Your task to perform on an android device: set default search engine in the chrome app Image 0: 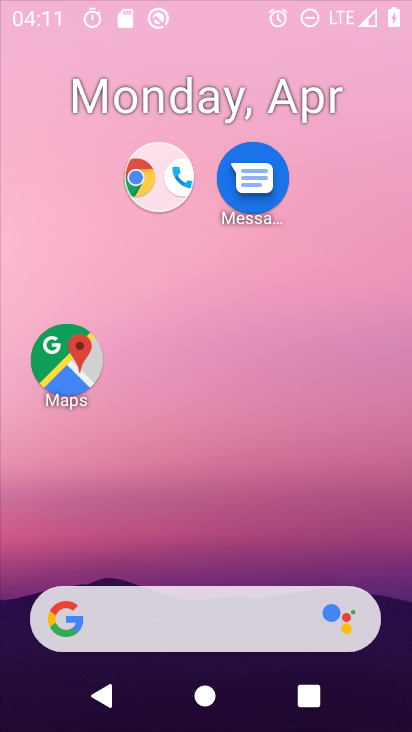
Step 0: click (291, 0)
Your task to perform on an android device: set default search engine in the chrome app Image 1: 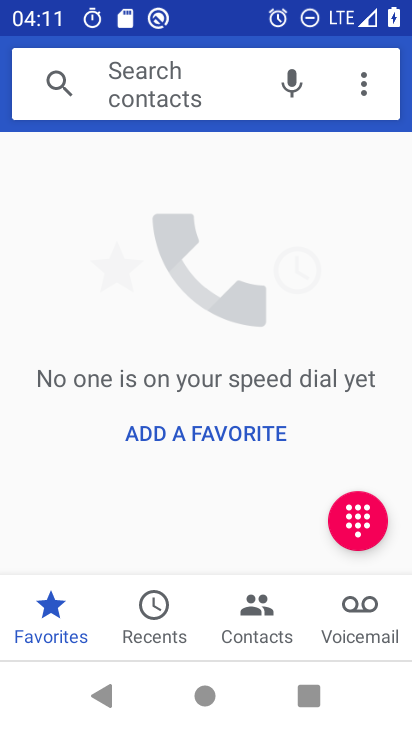
Step 1: press home button
Your task to perform on an android device: set default search engine in the chrome app Image 2: 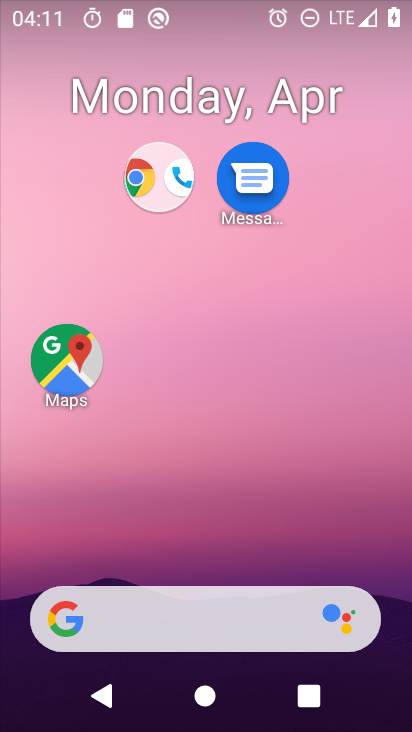
Step 2: drag from (246, 586) to (288, 2)
Your task to perform on an android device: set default search engine in the chrome app Image 3: 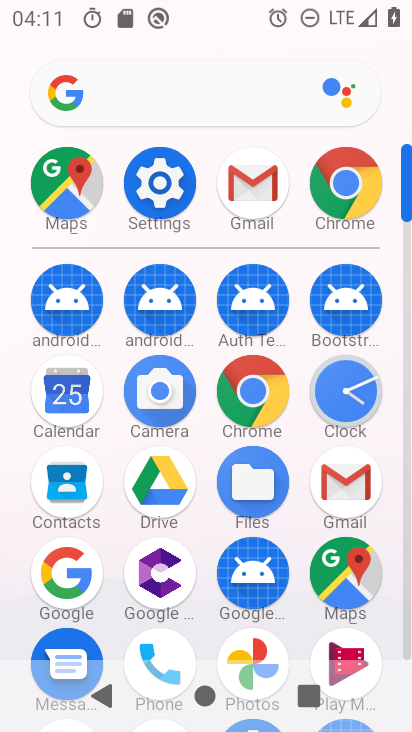
Step 3: click (260, 389)
Your task to perform on an android device: set default search engine in the chrome app Image 4: 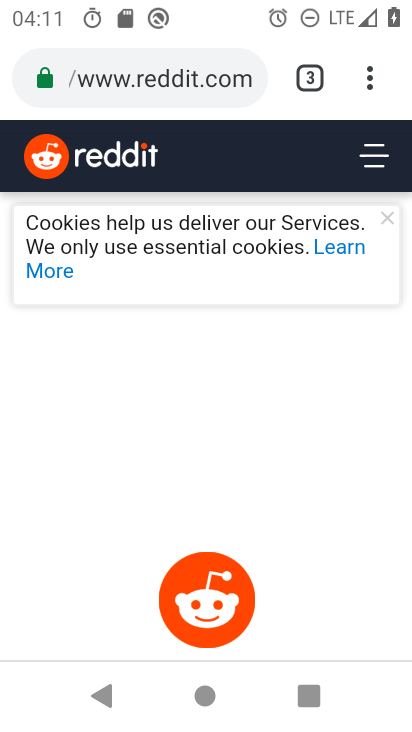
Step 4: drag from (369, 69) to (171, 558)
Your task to perform on an android device: set default search engine in the chrome app Image 5: 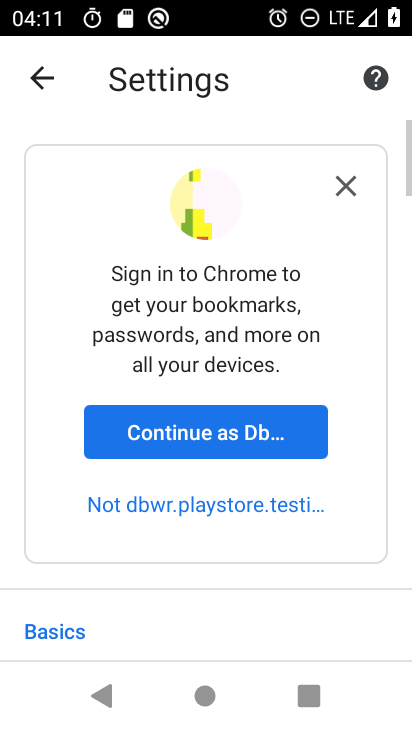
Step 5: drag from (139, 635) to (186, 255)
Your task to perform on an android device: set default search engine in the chrome app Image 6: 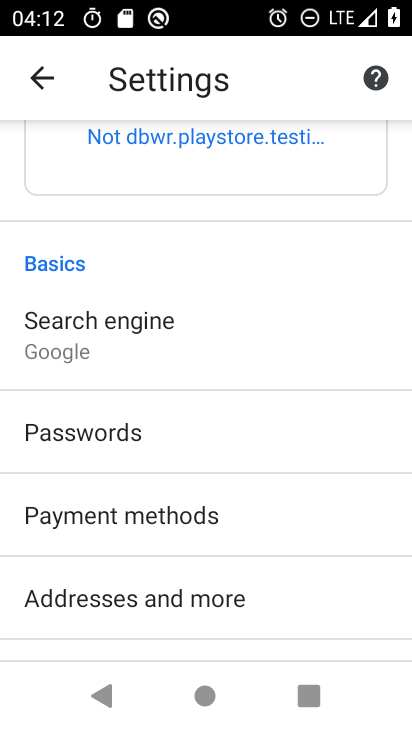
Step 6: click (178, 347)
Your task to perform on an android device: set default search engine in the chrome app Image 7: 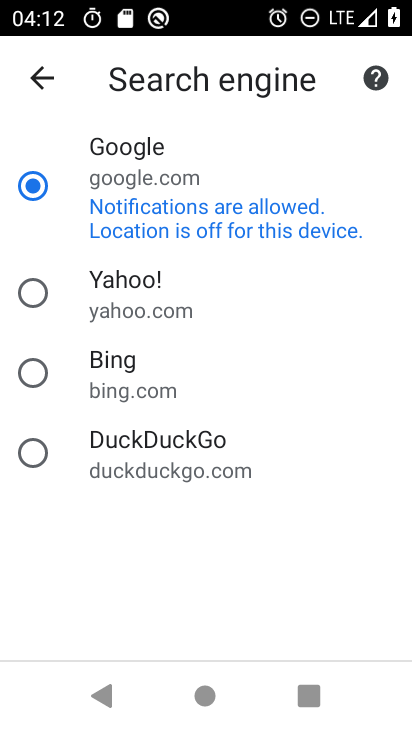
Step 7: task complete